Your task to perform on an android device: turn smart compose on in the gmail app Image 0: 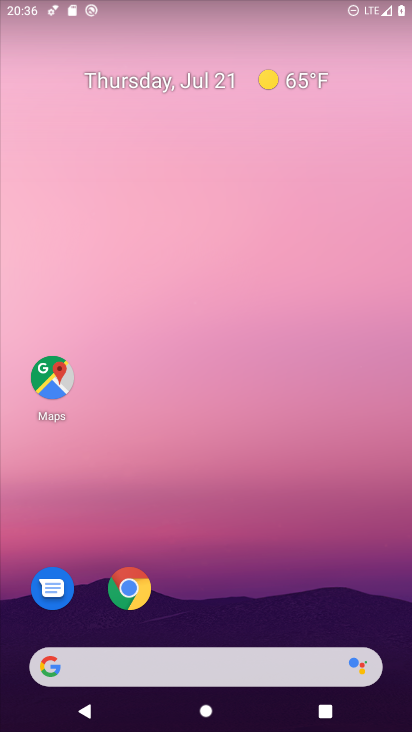
Step 0: drag from (238, 651) to (2, 526)
Your task to perform on an android device: turn smart compose on in the gmail app Image 1: 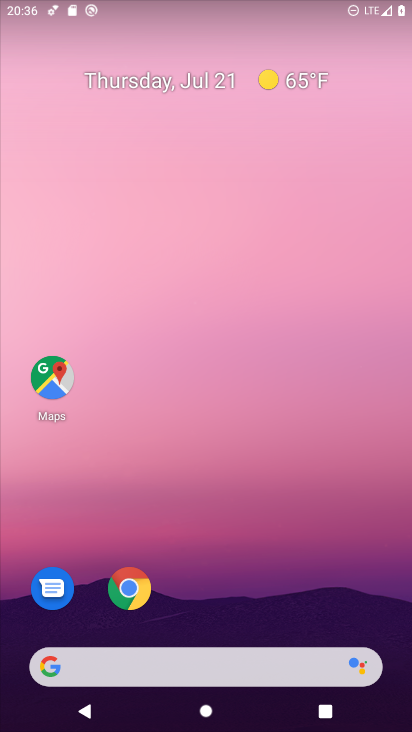
Step 1: drag from (201, 624) to (120, 56)
Your task to perform on an android device: turn smart compose on in the gmail app Image 2: 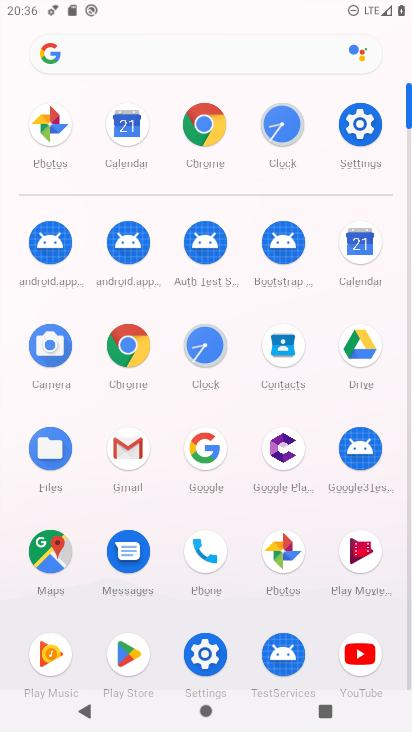
Step 2: click (125, 437)
Your task to perform on an android device: turn smart compose on in the gmail app Image 3: 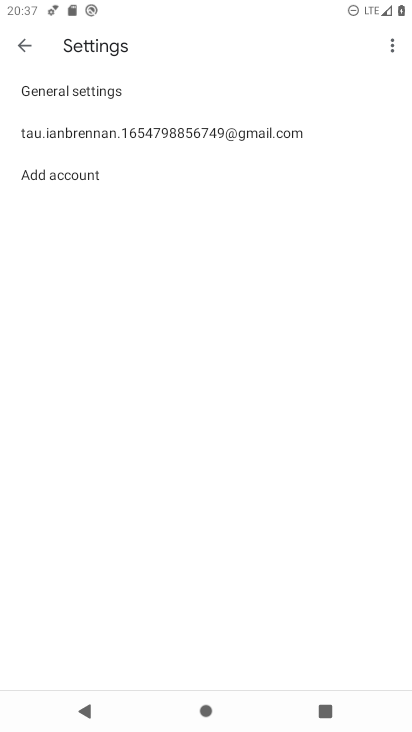
Step 3: click (46, 123)
Your task to perform on an android device: turn smart compose on in the gmail app Image 4: 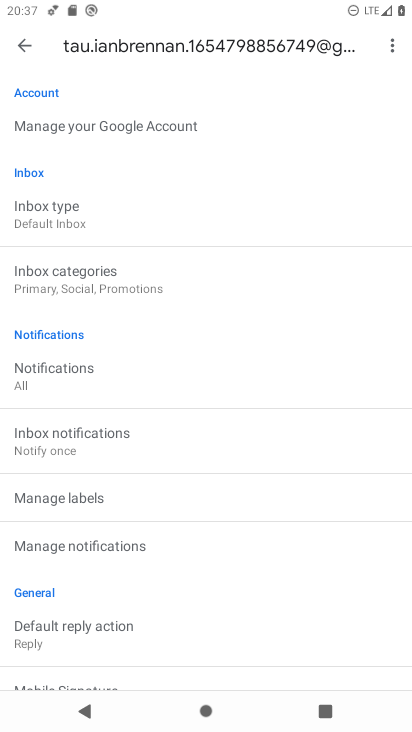
Step 4: task complete